Your task to perform on an android device: turn on the 24-hour format for clock Image 0: 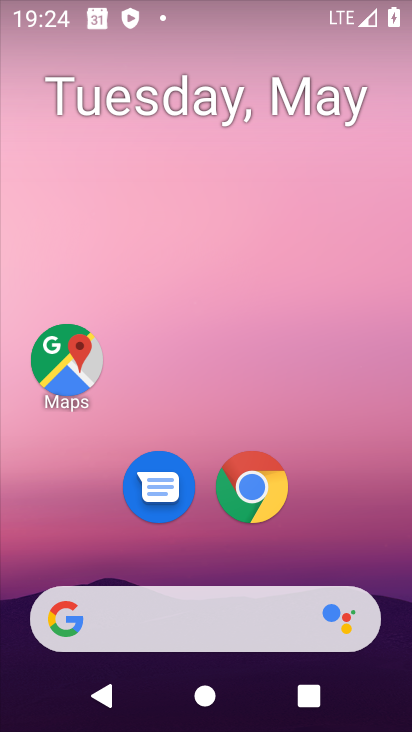
Step 0: drag from (344, 536) to (311, 85)
Your task to perform on an android device: turn on the 24-hour format for clock Image 1: 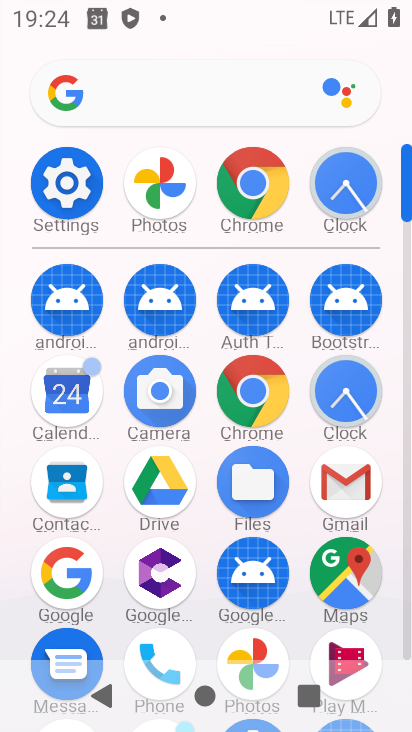
Step 1: click (334, 180)
Your task to perform on an android device: turn on the 24-hour format for clock Image 2: 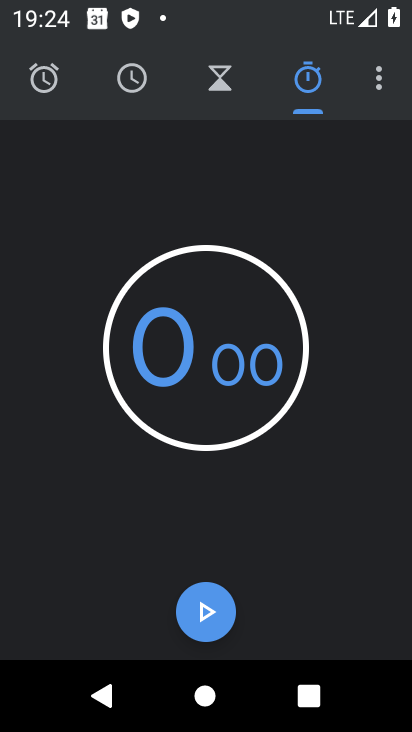
Step 2: click (383, 69)
Your task to perform on an android device: turn on the 24-hour format for clock Image 3: 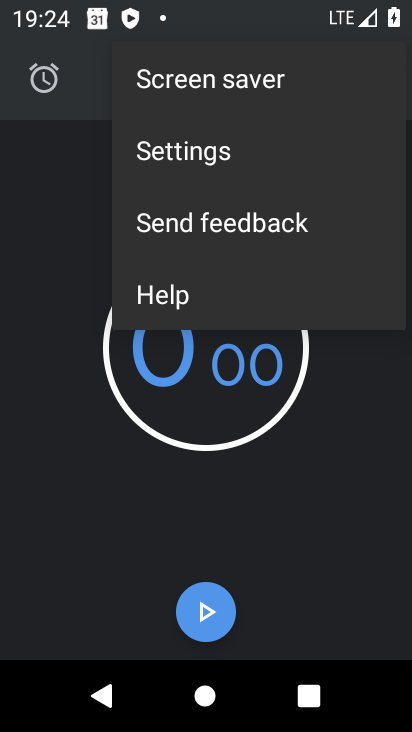
Step 3: click (202, 146)
Your task to perform on an android device: turn on the 24-hour format for clock Image 4: 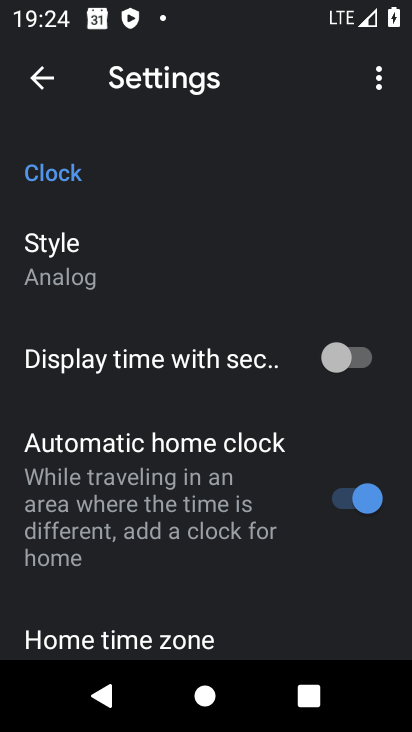
Step 4: drag from (283, 556) to (283, 180)
Your task to perform on an android device: turn on the 24-hour format for clock Image 5: 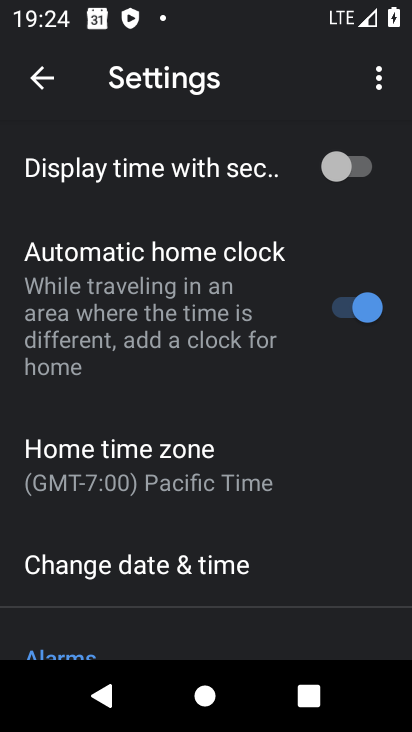
Step 5: click (176, 561)
Your task to perform on an android device: turn on the 24-hour format for clock Image 6: 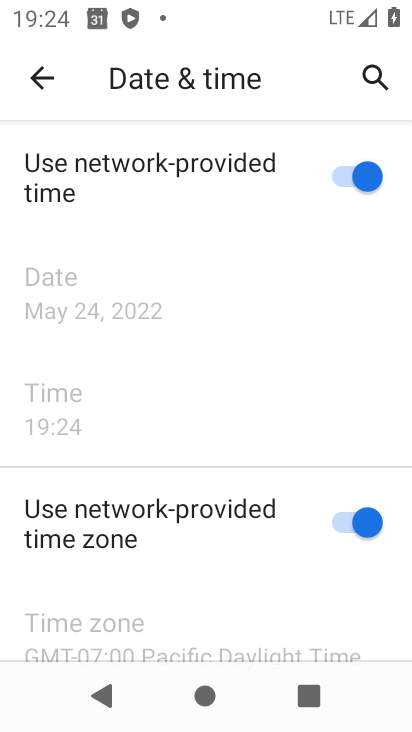
Step 6: task complete